Your task to perform on an android device: toggle pop-ups in chrome Image 0: 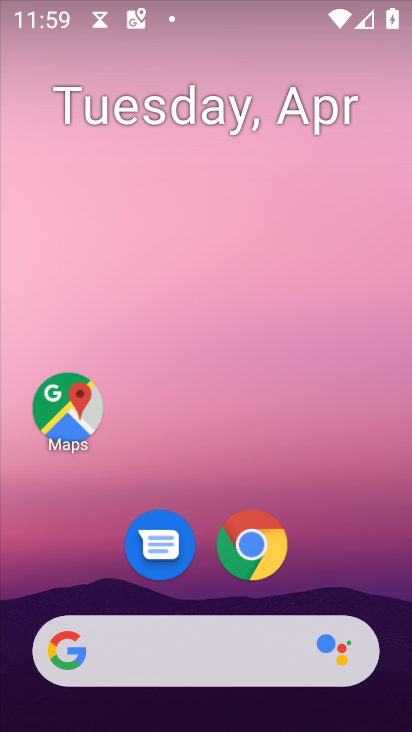
Step 0: drag from (376, 557) to (274, 40)
Your task to perform on an android device: toggle pop-ups in chrome Image 1: 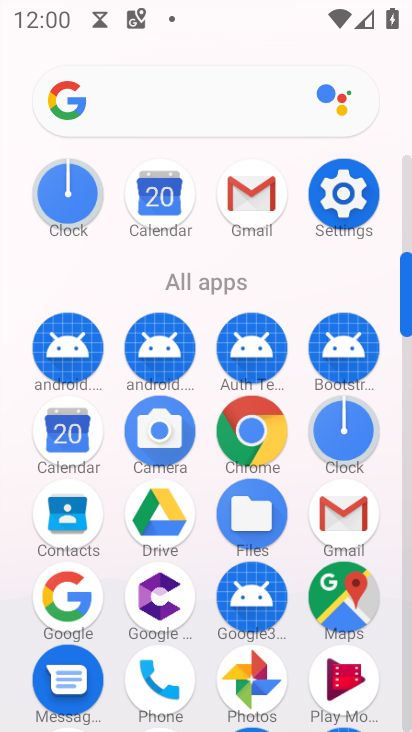
Step 1: click (251, 413)
Your task to perform on an android device: toggle pop-ups in chrome Image 2: 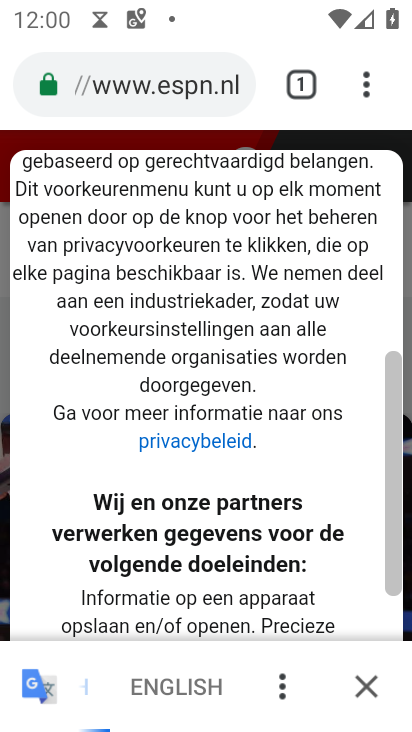
Step 2: drag from (376, 76) to (50, 592)
Your task to perform on an android device: toggle pop-ups in chrome Image 3: 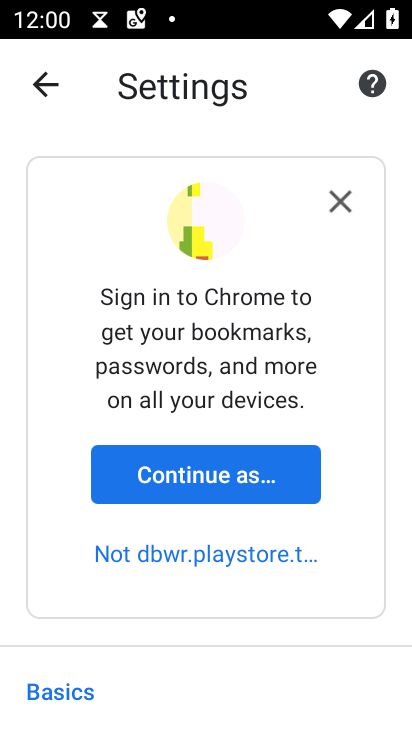
Step 3: click (178, 475)
Your task to perform on an android device: toggle pop-ups in chrome Image 4: 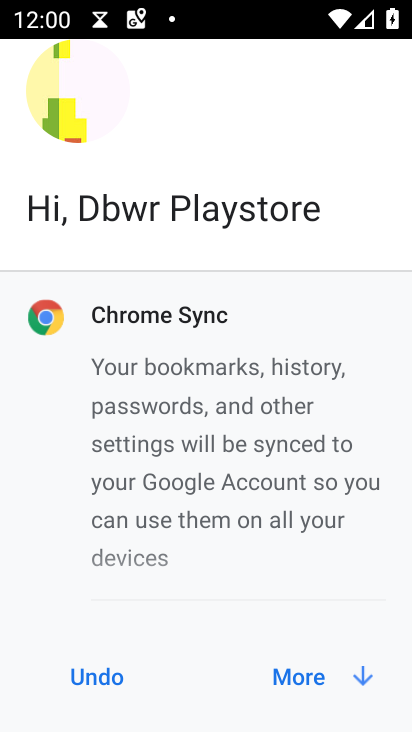
Step 4: click (306, 673)
Your task to perform on an android device: toggle pop-ups in chrome Image 5: 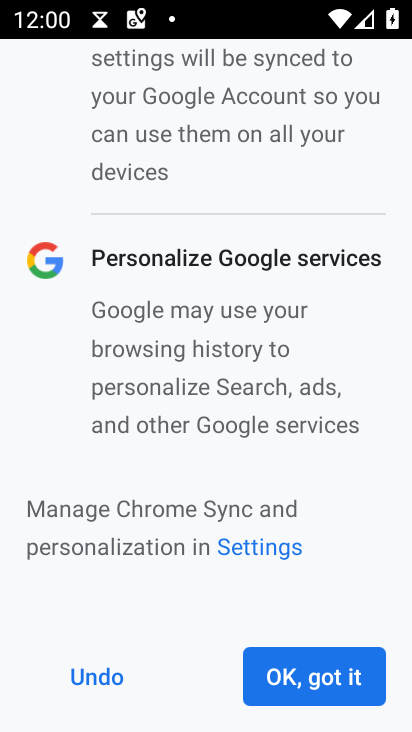
Step 5: click (320, 678)
Your task to perform on an android device: toggle pop-ups in chrome Image 6: 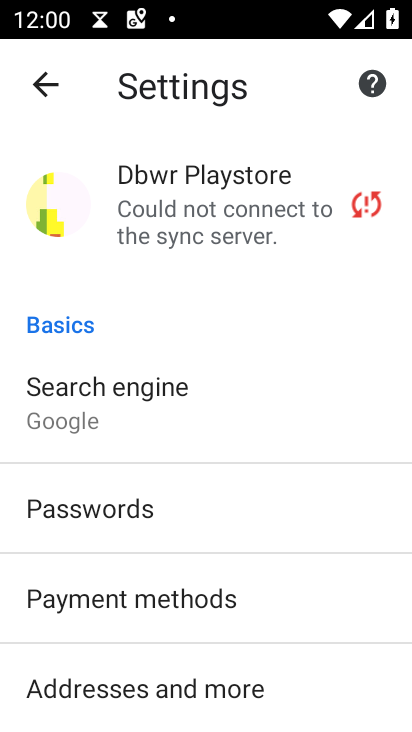
Step 6: drag from (235, 571) to (195, 263)
Your task to perform on an android device: toggle pop-ups in chrome Image 7: 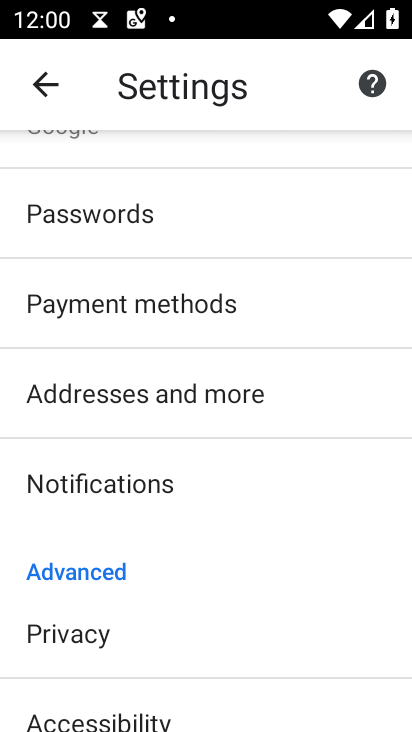
Step 7: drag from (253, 580) to (263, 200)
Your task to perform on an android device: toggle pop-ups in chrome Image 8: 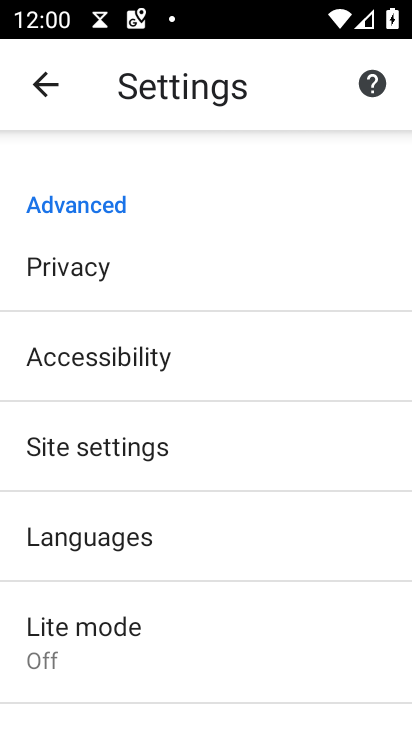
Step 8: click (160, 462)
Your task to perform on an android device: toggle pop-ups in chrome Image 9: 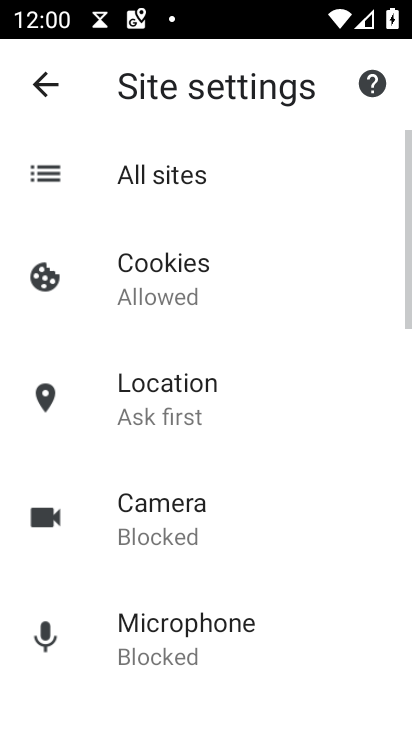
Step 9: drag from (276, 617) to (222, 247)
Your task to perform on an android device: toggle pop-ups in chrome Image 10: 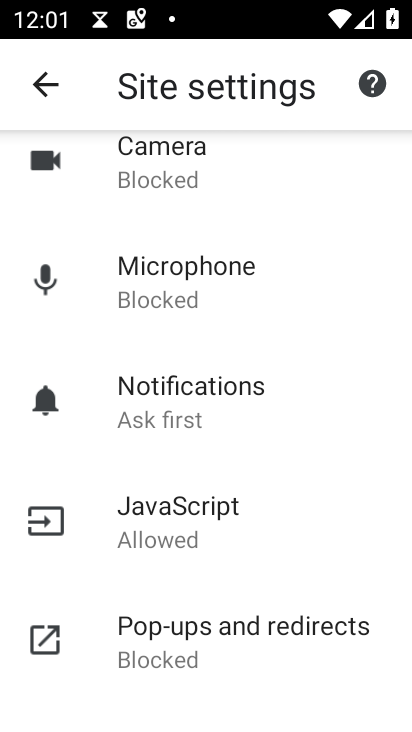
Step 10: drag from (277, 654) to (243, 314)
Your task to perform on an android device: toggle pop-ups in chrome Image 11: 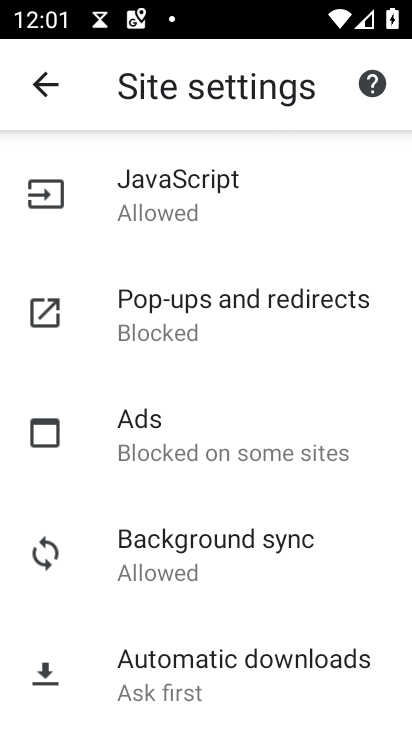
Step 11: click (198, 309)
Your task to perform on an android device: toggle pop-ups in chrome Image 12: 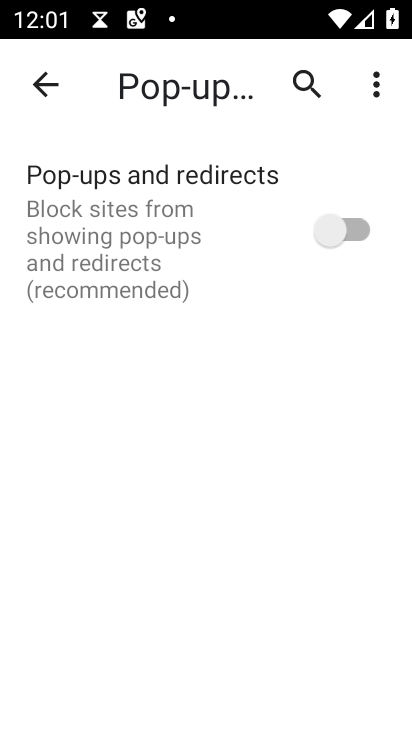
Step 12: click (333, 233)
Your task to perform on an android device: toggle pop-ups in chrome Image 13: 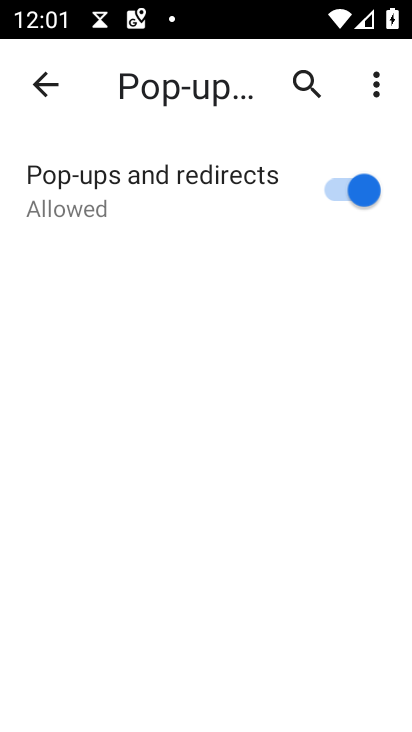
Step 13: task complete